Your task to perform on an android device: change notifications settings Image 0: 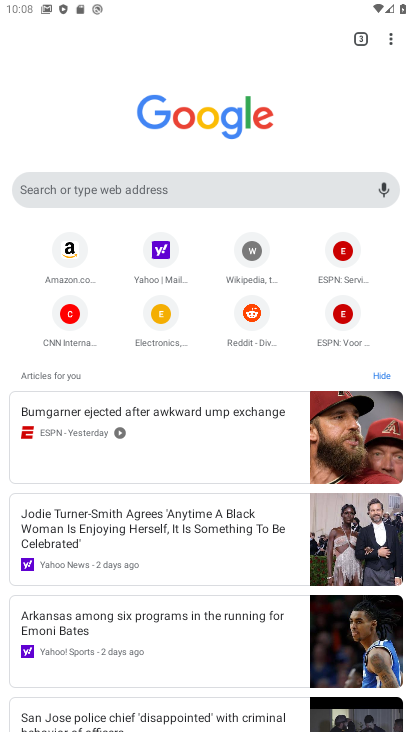
Step 0: press home button
Your task to perform on an android device: change notifications settings Image 1: 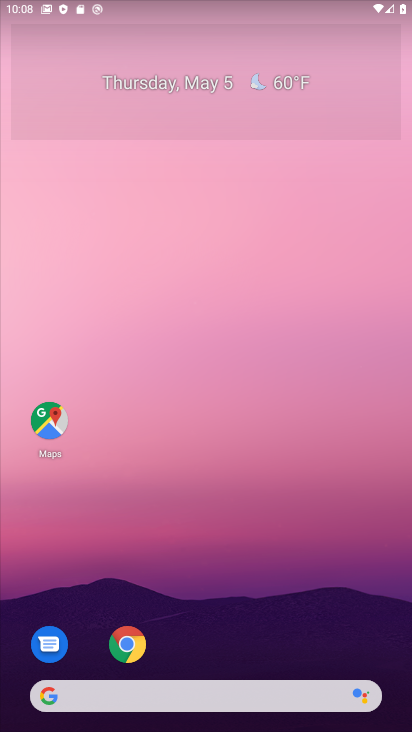
Step 1: drag from (366, 619) to (383, 200)
Your task to perform on an android device: change notifications settings Image 2: 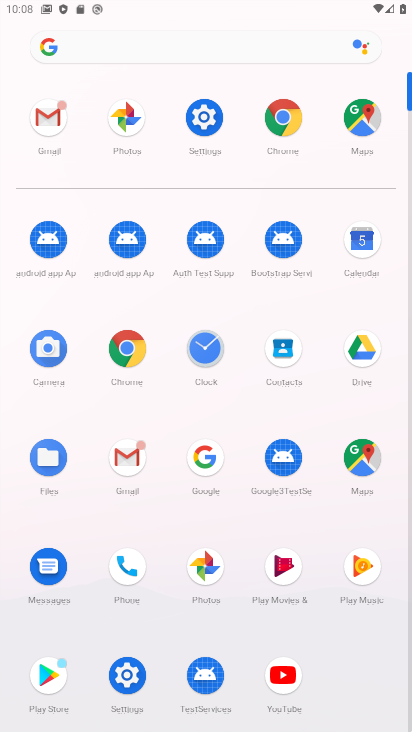
Step 2: click (206, 110)
Your task to perform on an android device: change notifications settings Image 3: 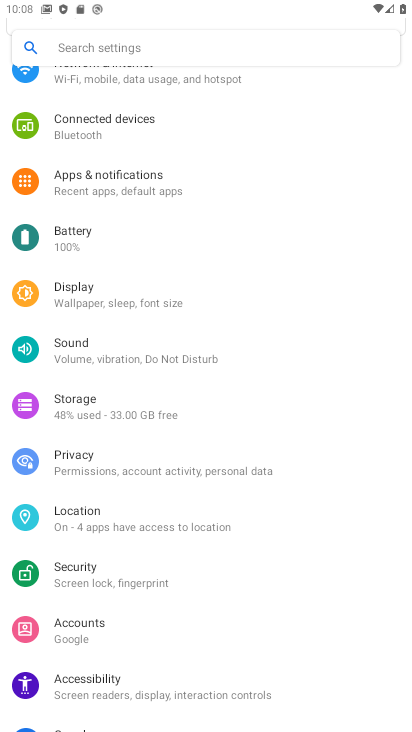
Step 3: click (134, 183)
Your task to perform on an android device: change notifications settings Image 4: 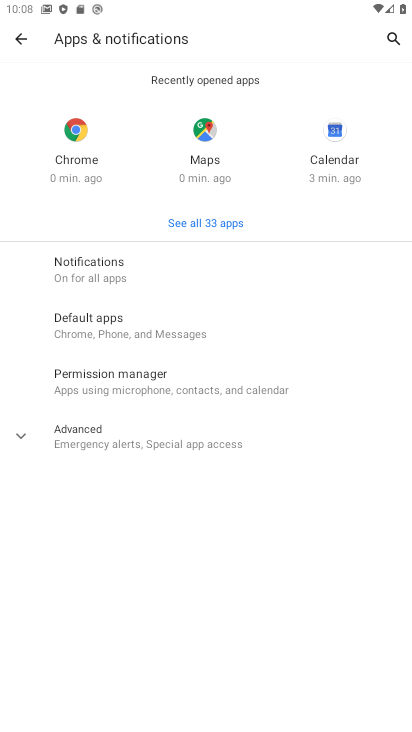
Step 4: click (118, 257)
Your task to perform on an android device: change notifications settings Image 5: 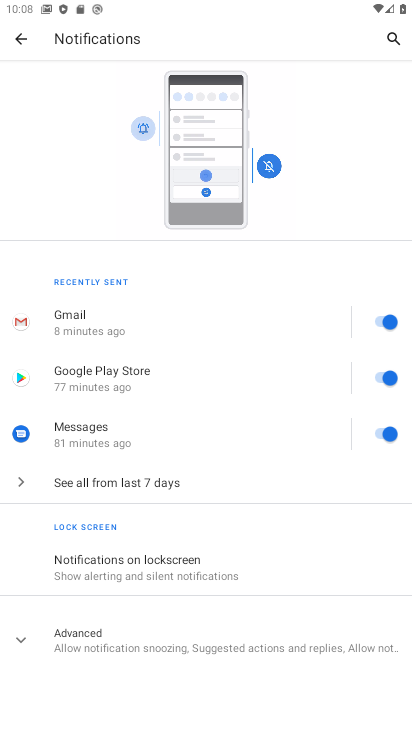
Step 5: click (380, 323)
Your task to perform on an android device: change notifications settings Image 6: 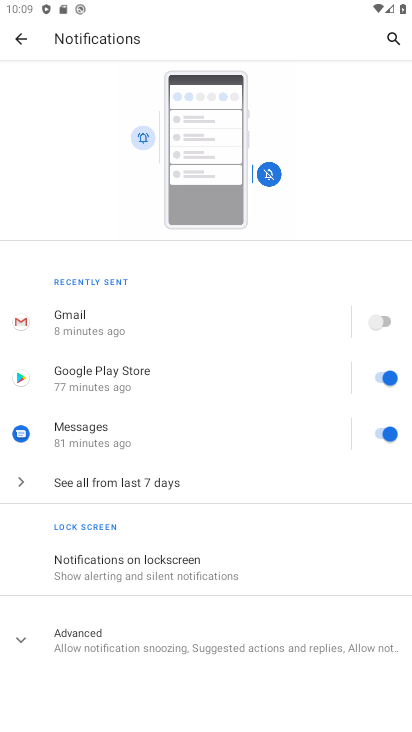
Step 6: task complete